Your task to perform on an android device: What's the weather going to be tomorrow? Image 0: 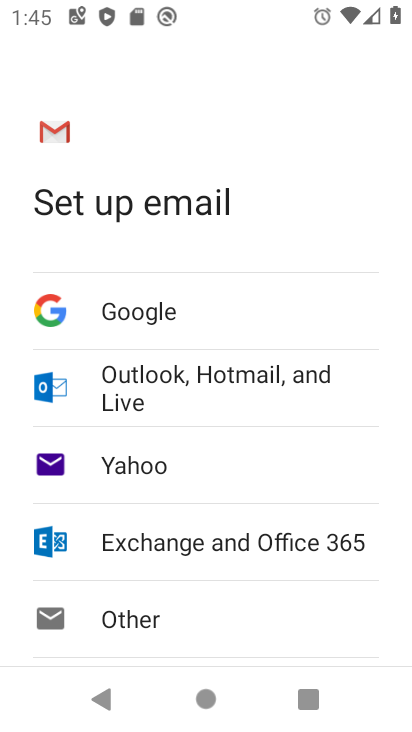
Step 0: press home button
Your task to perform on an android device: What's the weather going to be tomorrow? Image 1: 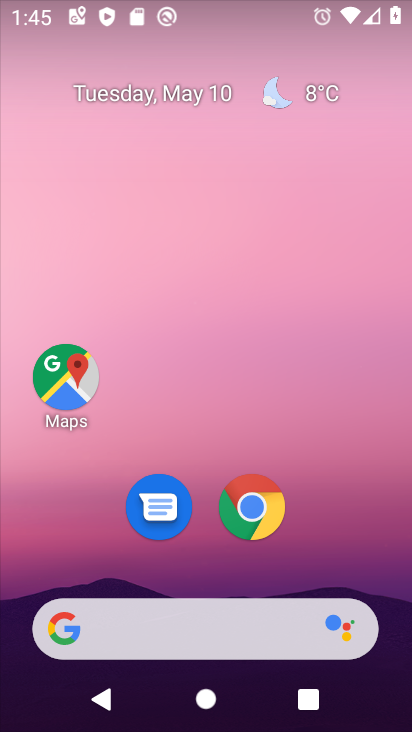
Step 1: drag from (228, 730) to (230, 194)
Your task to perform on an android device: What's the weather going to be tomorrow? Image 2: 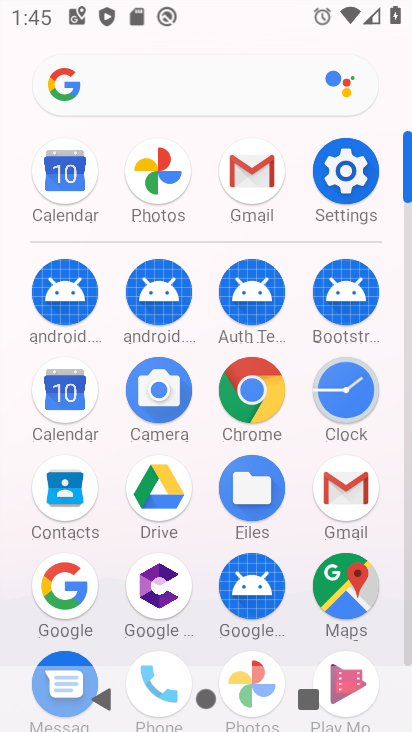
Step 2: click (68, 586)
Your task to perform on an android device: What's the weather going to be tomorrow? Image 3: 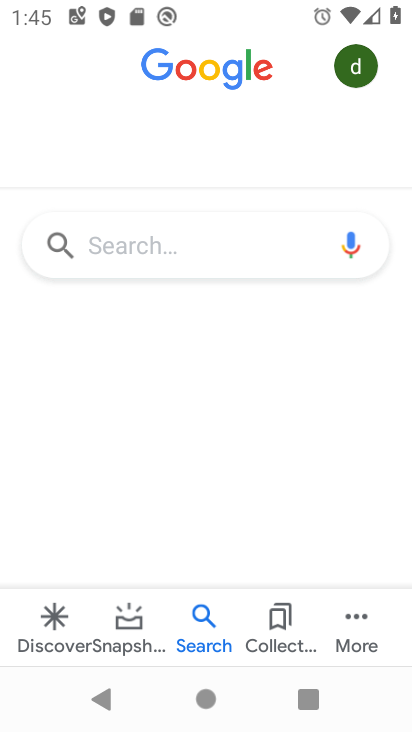
Step 3: click (159, 254)
Your task to perform on an android device: What's the weather going to be tomorrow? Image 4: 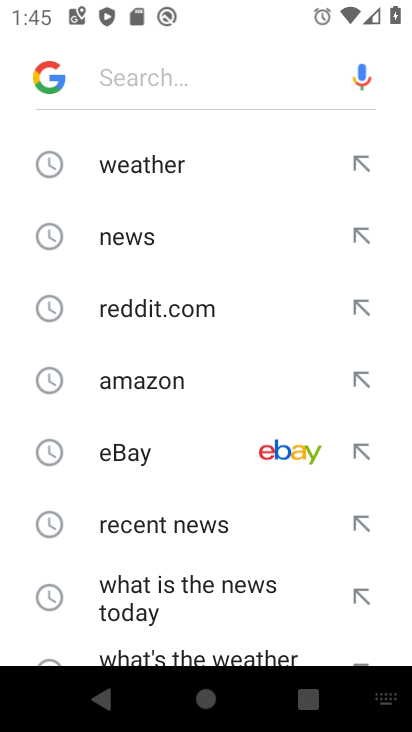
Step 4: click (131, 163)
Your task to perform on an android device: What's the weather going to be tomorrow? Image 5: 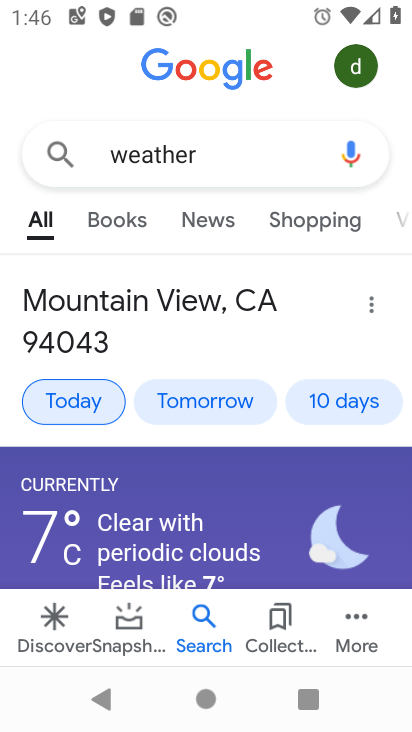
Step 5: click (184, 401)
Your task to perform on an android device: What's the weather going to be tomorrow? Image 6: 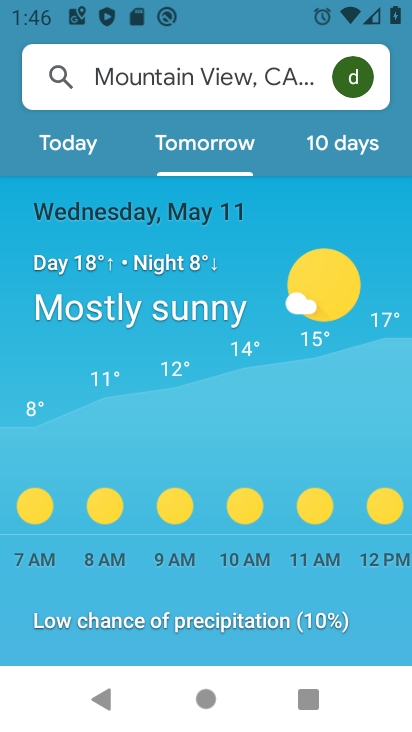
Step 6: task complete